Your task to perform on an android device: What is the news today? Image 0: 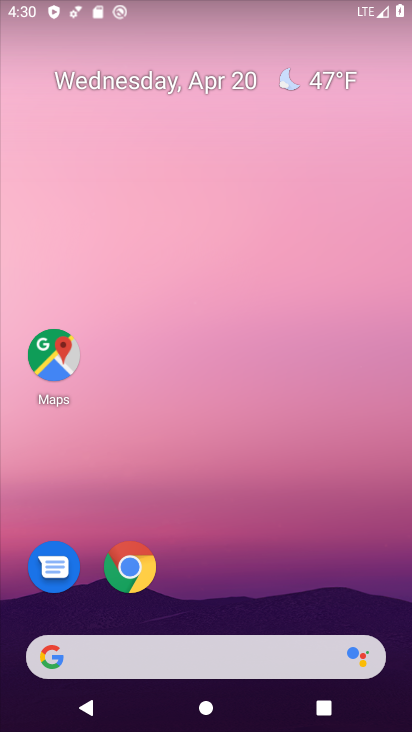
Step 0: drag from (330, 531) to (243, 6)
Your task to perform on an android device: What is the news today? Image 1: 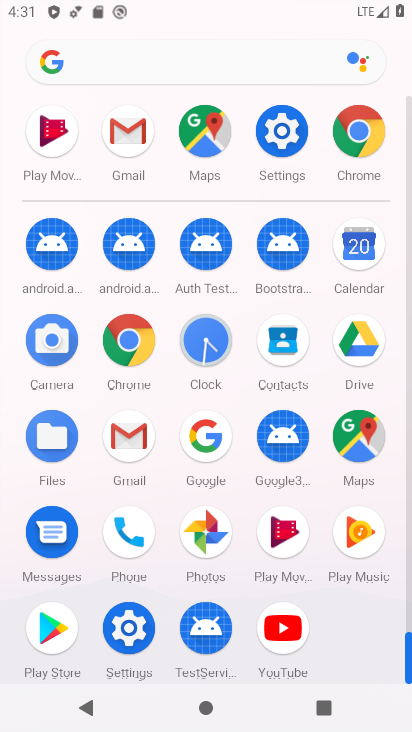
Step 1: click (144, 64)
Your task to perform on an android device: What is the news today? Image 2: 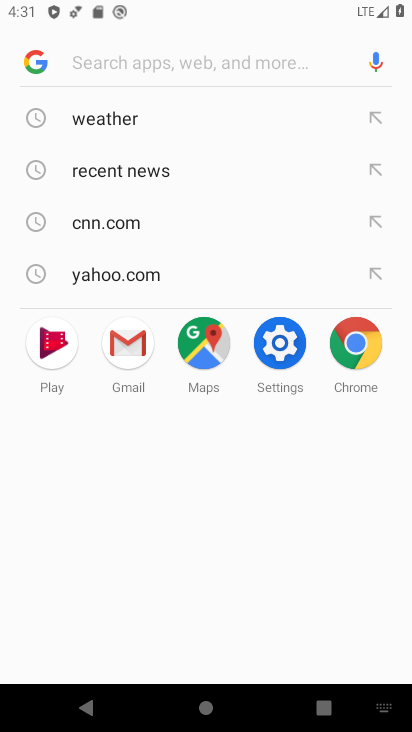
Step 2: click (146, 164)
Your task to perform on an android device: What is the news today? Image 3: 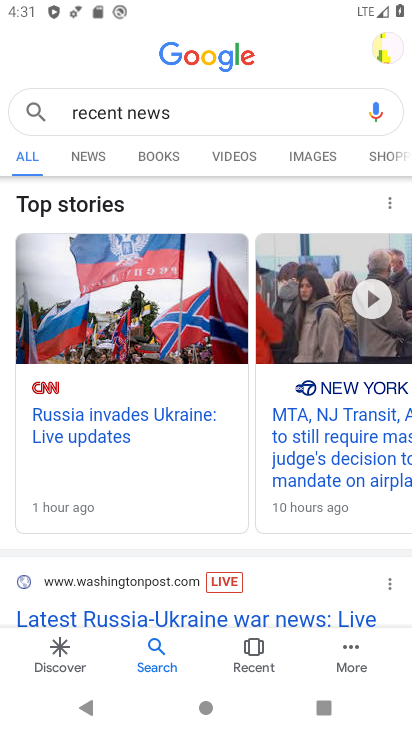
Step 3: task complete